Your task to perform on an android device: add a label to a message in the gmail app Image 0: 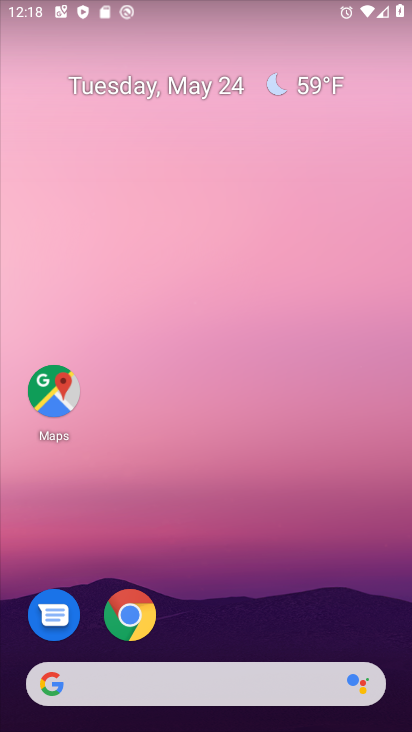
Step 0: drag from (276, 575) to (244, 0)
Your task to perform on an android device: add a label to a message in the gmail app Image 1: 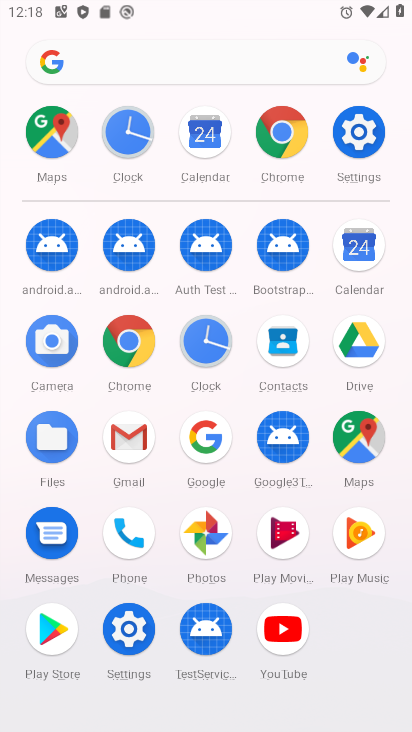
Step 1: drag from (4, 579) to (14, 337)
Your task to perform on an android device: add a label to a message in the gmail app Image 2: 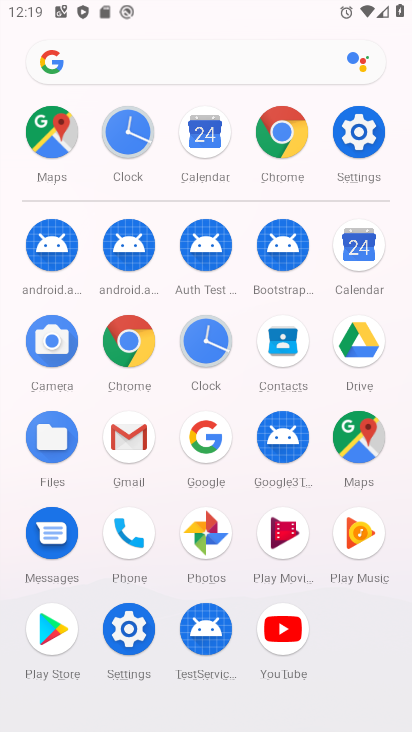
Step 2: click (122, 443)
Your task to perform on an android device: add a label to a message in the gmail app Image 3: 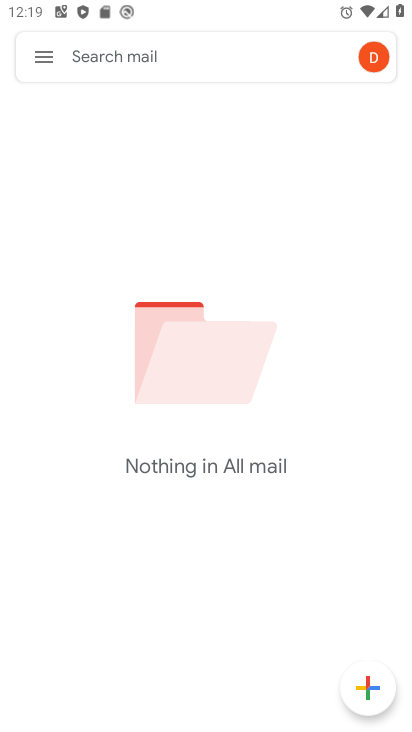
Step 3: click (45, 54)
Your task to perform on an android device: add a label to a message in the gmail app Image 4: 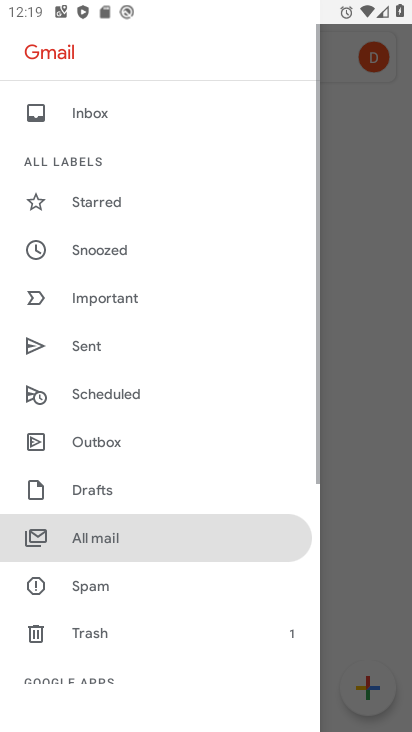
Step 4: drag from (153, 529) to (147, 107)
Your task to perform on an android device: add a label to a message in the gmail app Image 5: 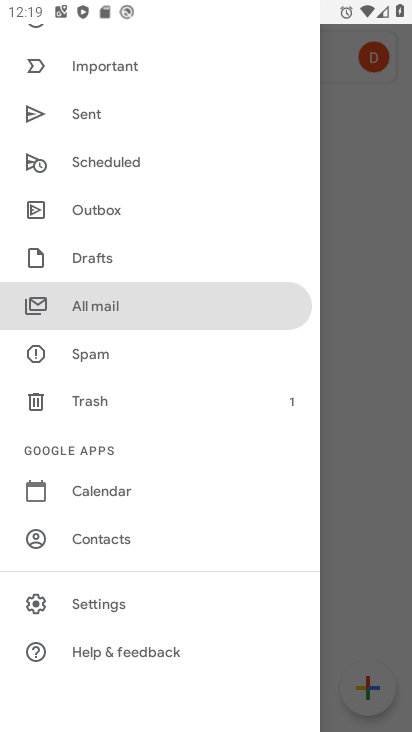
Step 5: click (128, 589)
Your task to perform on an android device: add a label to a message in the gmail app Image 6: 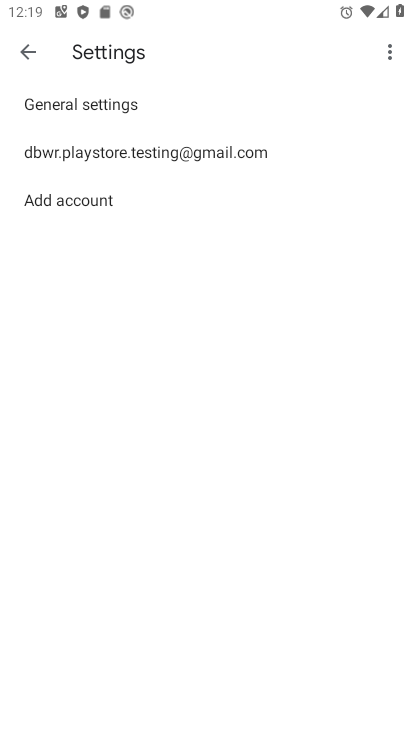
Step 6: click (23, 62)
Your task to perform on an android device: add a label to a message in the gmail app Image 7: 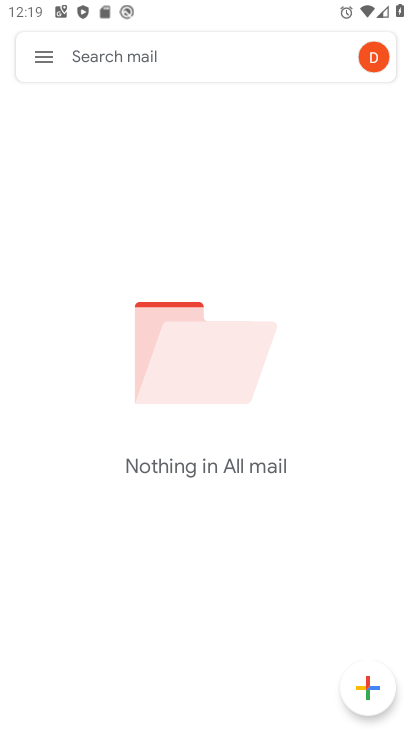
Step 7: click (37, 58)
Your task to perform on an android device: add a label to a message in the gmail app Image 8: 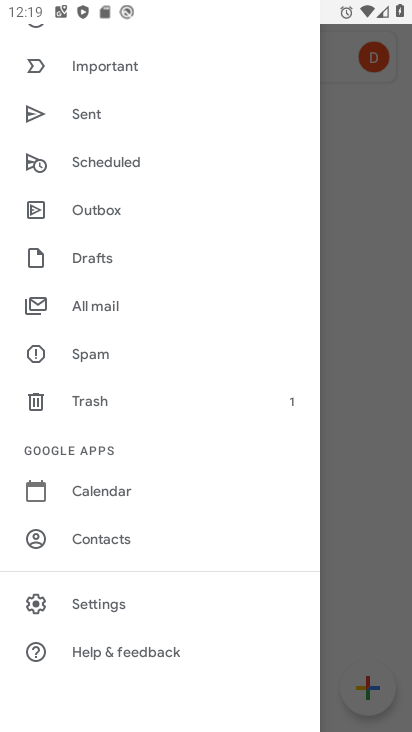
Step 8: drag from (113, 186) to (113, 540)
Your task to perform on an android device: add a label to a message in the gmail app Image 9: 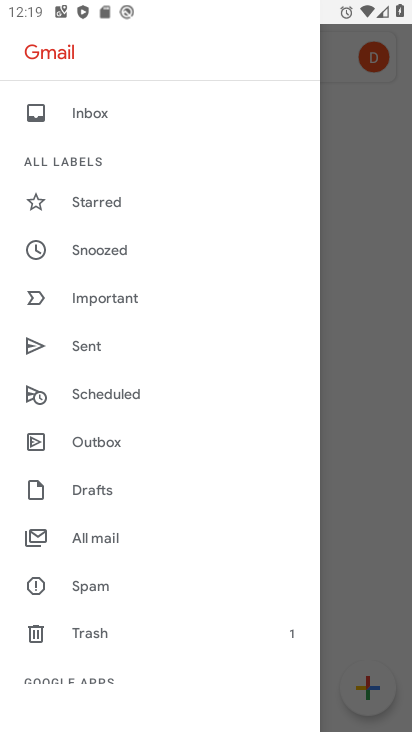
Step 9: click (122, 110)
Your task to perform on an android device: add a label to a message in the gmail app Image 10: 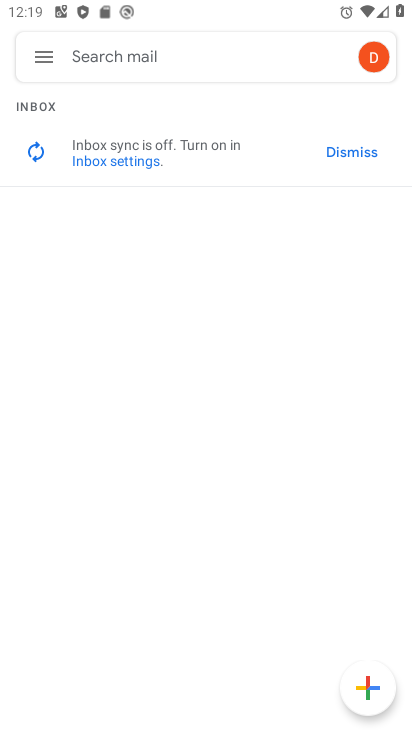
Step 10: click (38, 56)
Your task to perform on an android device: add a label to a message in the gmail app Image 11: 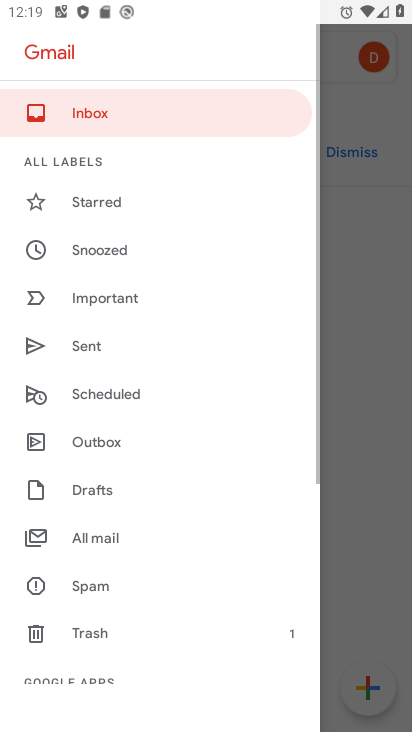
Step 11: click (115, 533)
Your task to perform on an android device: add a label to a message in the gmail app Image 12: 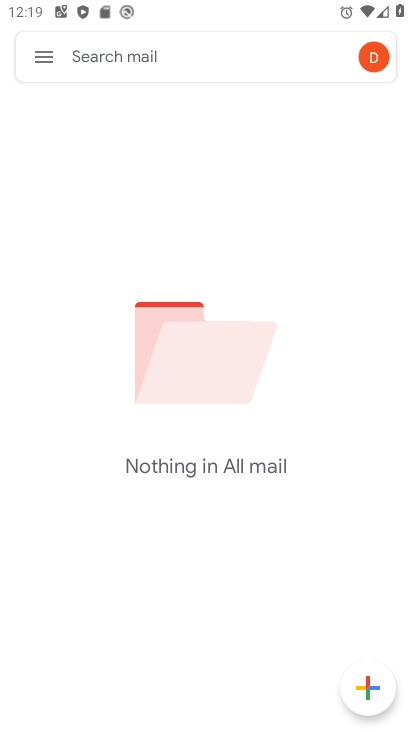
Step 12: click (33, 48)
Your task to perform on an android device: add a label to a message in the gmail app Image 13: 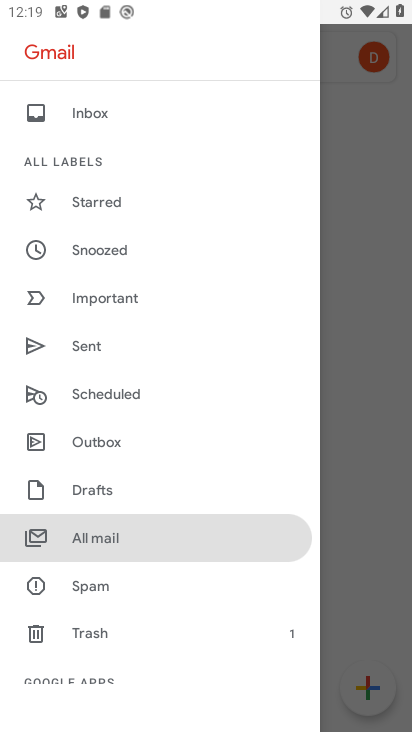
Step 13: click (147, 531)
Your task to perform on an android device: add a label to a message in the gmail app Image 14: 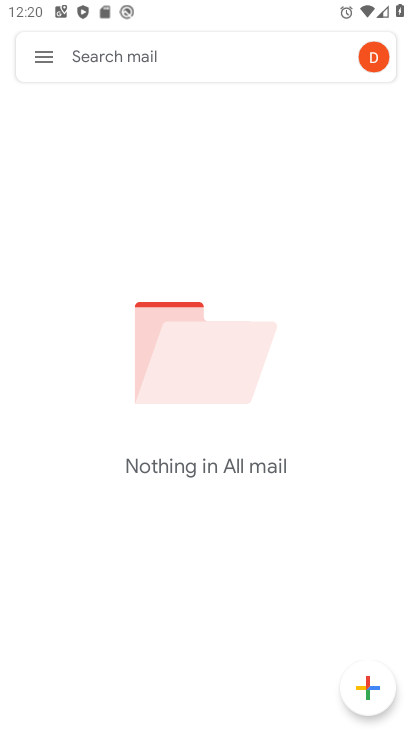
Step 14: click (33, 43)
Your task to perform on an android device: add a label to a message in the gmail app Image 15: 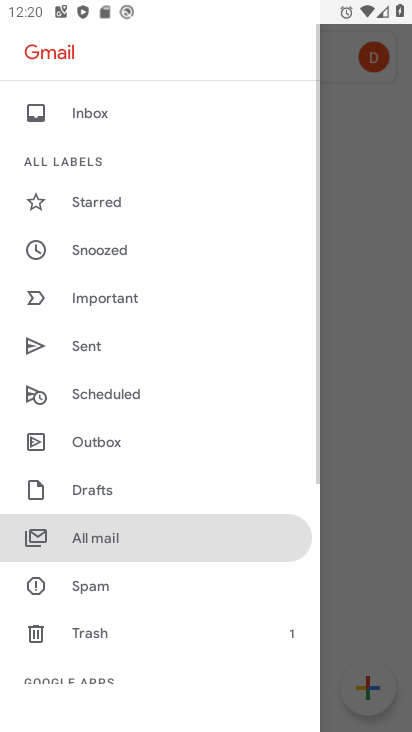
Step 15: click (178, 641)
Your task to perform on an android device: add a label to a message in the gmail app Image 16: 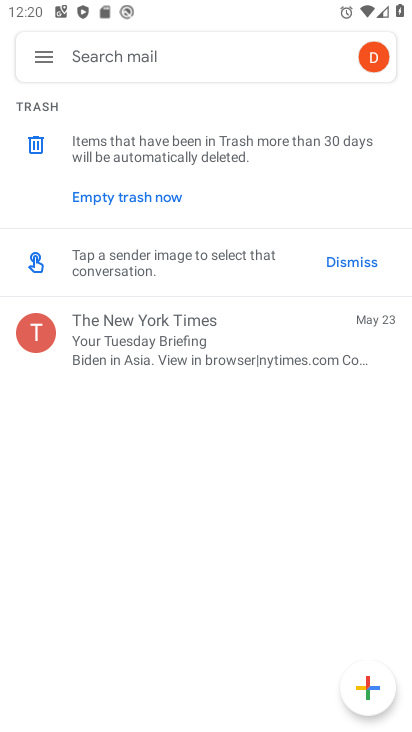
Step 16: click (206, 345)
Your task to perform on an android device: add a label to a message in the gmail app Image 17: 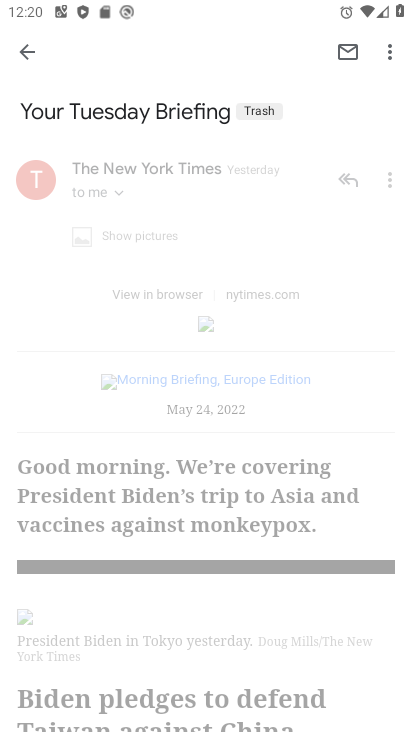
Step 17: click (260, 113)
Your task to perform on an android device: add a label to a message in the gmail app Image 18: 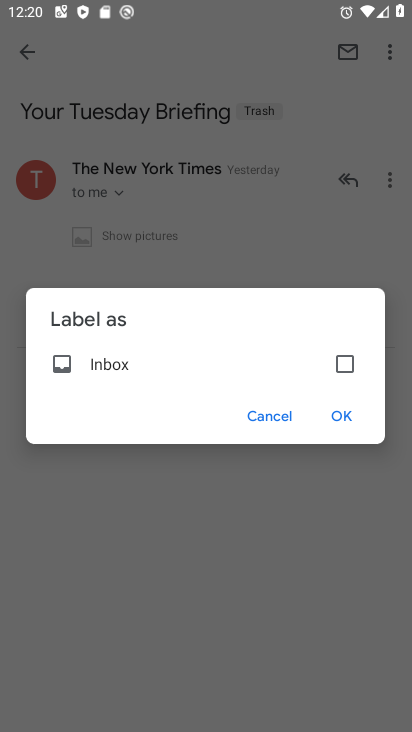
Step 18: click (342, 359)
Your task to perform on an android device: add a label to a message in the gmail app Image 19: 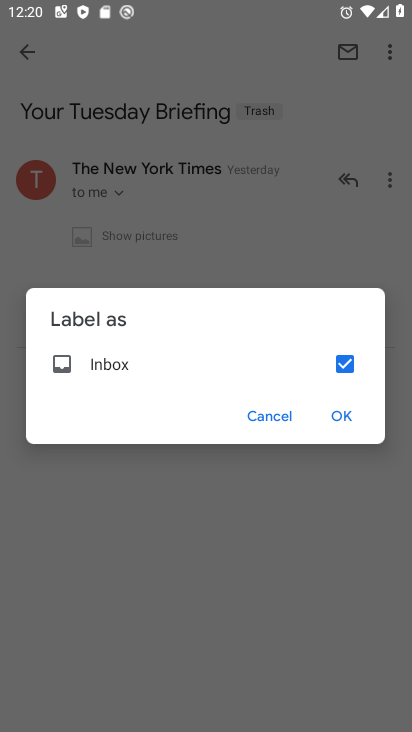
Step 19: click (343, 418)
Your task to perform on an android device: add a label to a message in the gmail app Image 20: 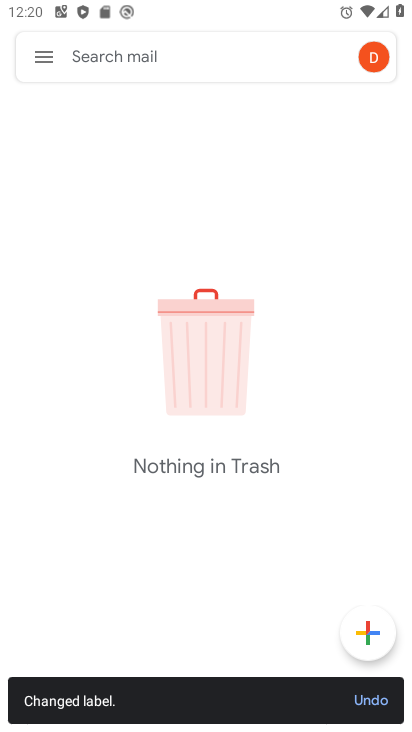
Step 20: task complete